Your task to perform on an android device: Open Google Image 0: 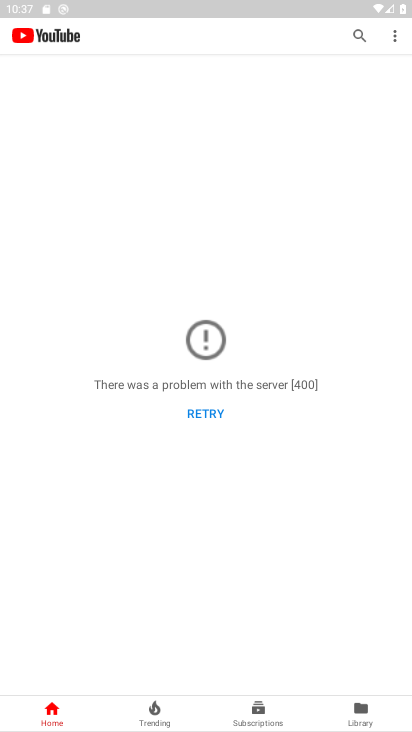
Step 0: press home button
Your task to perform on an android device: Open Google Image 1: 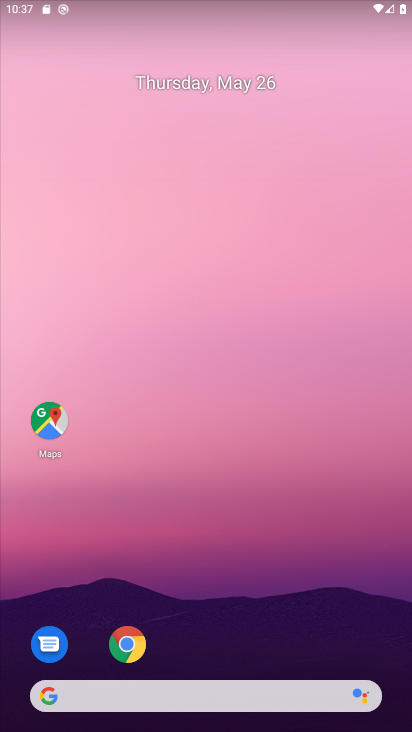
Step 1: drag from (385, 578) to (357, 236)
Your task to perform on an android device: Open Google Image 2: 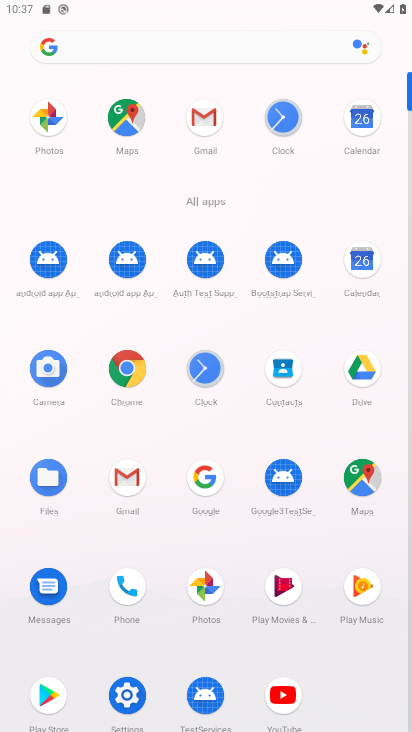
Step 2: click (212, 488)
Your task to perform on an android device: Open Google Image 3: 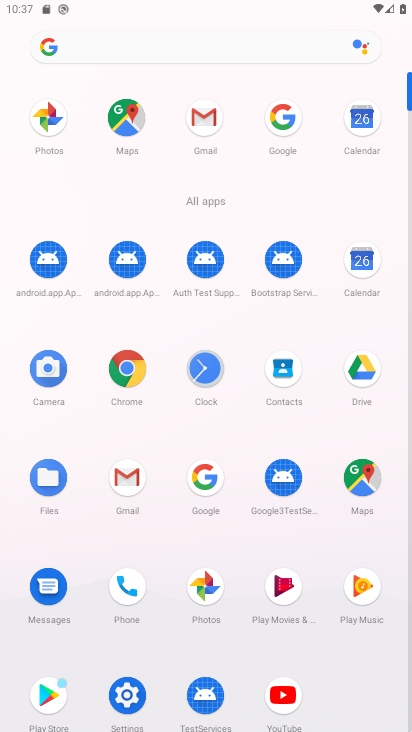
Step 3: task complete